Your task to perform on an android device: Search for the best selling phone on AliExpress Image 0: 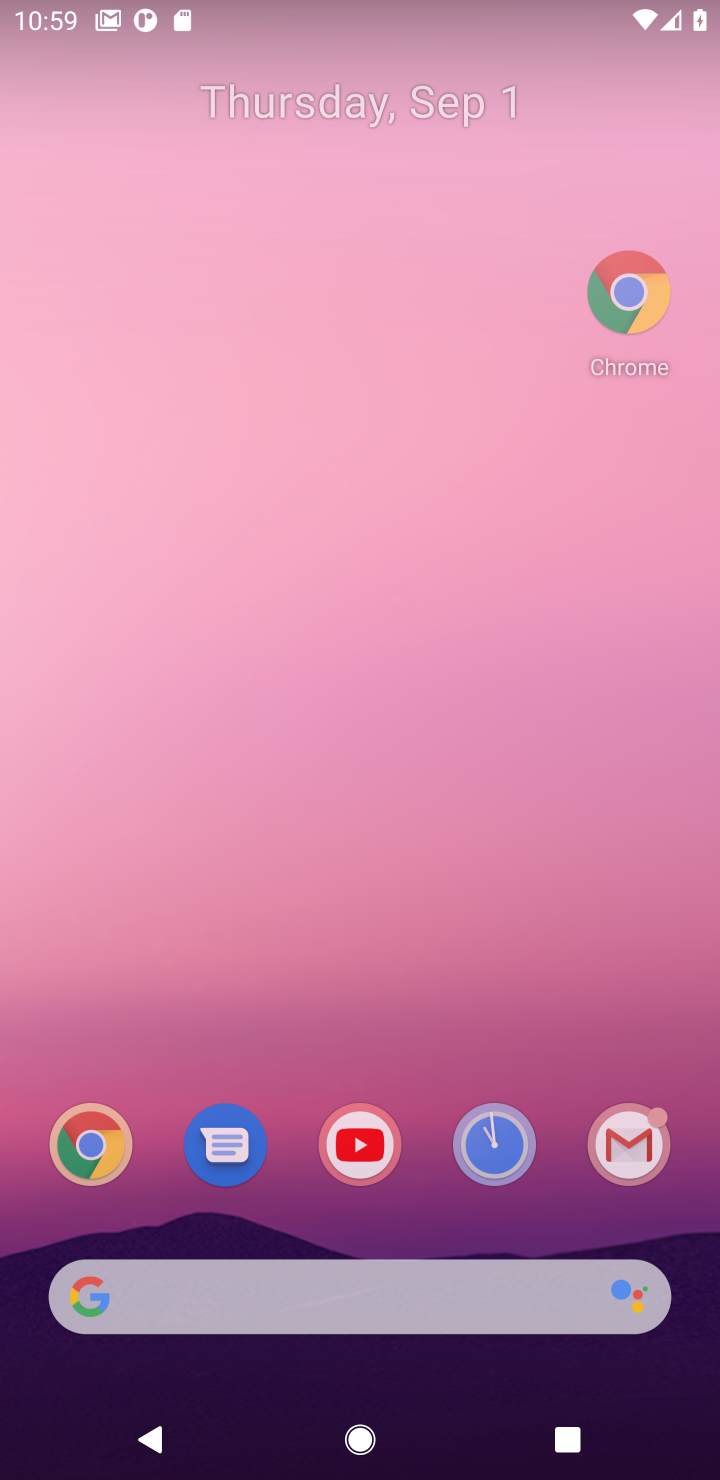
Step 0: press home button
Your task to perform on an android device: Search for the best selling phone on AliExpress Image 1: 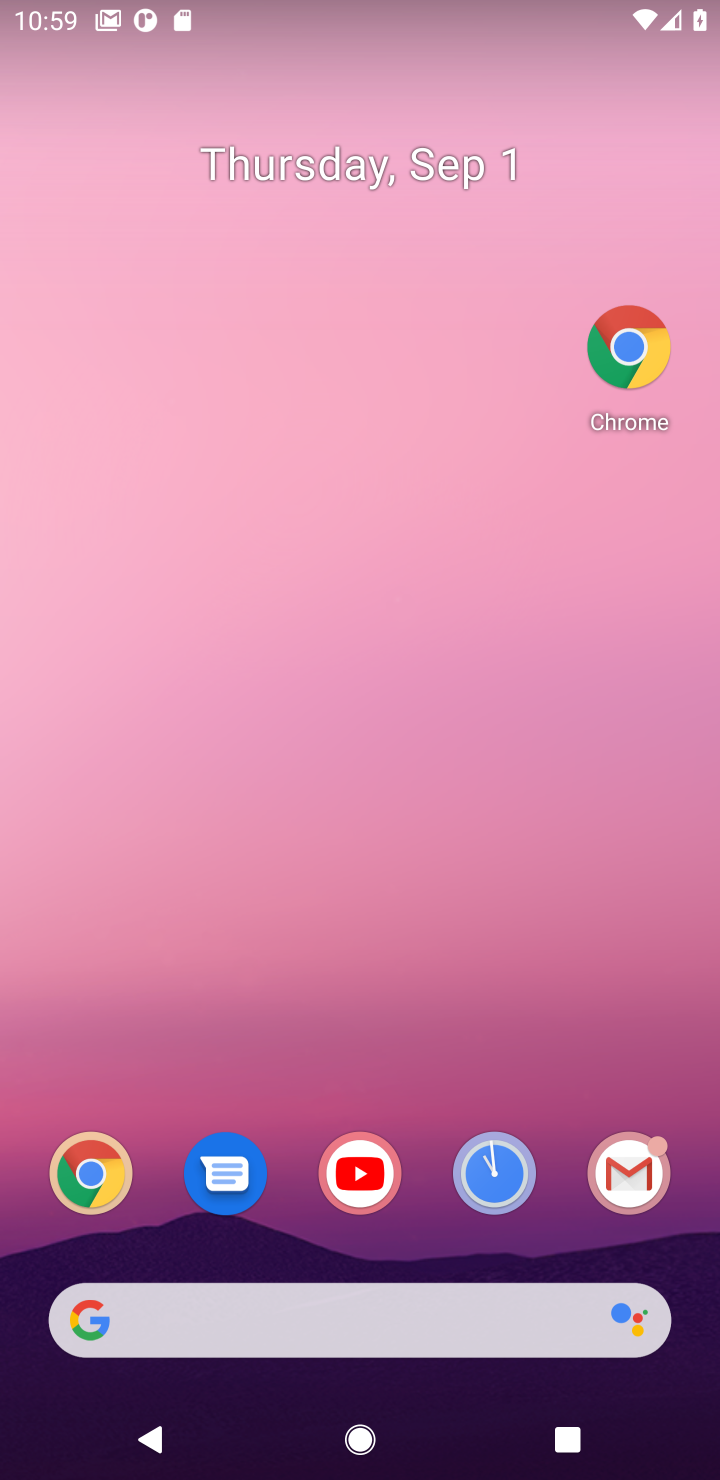
Step 1: drag from (474, 464) to (481, 4)
Your task to perform on an android device: Search for the best selling phone on AliExpress Image 2: 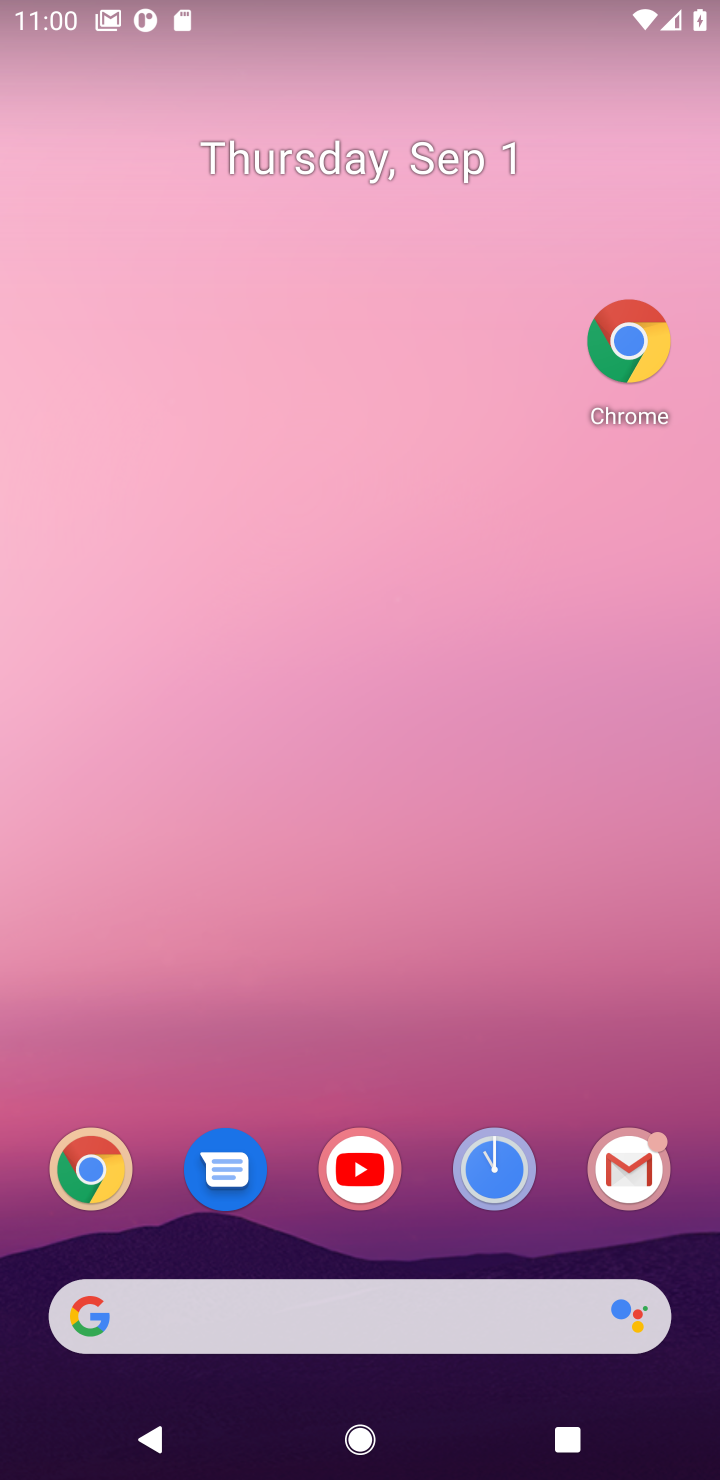
Step 2: drag from (428, 1057) to (48, 624)
Your task to perform on an android device: Search for the best selling phone on AliExpress Image 3: 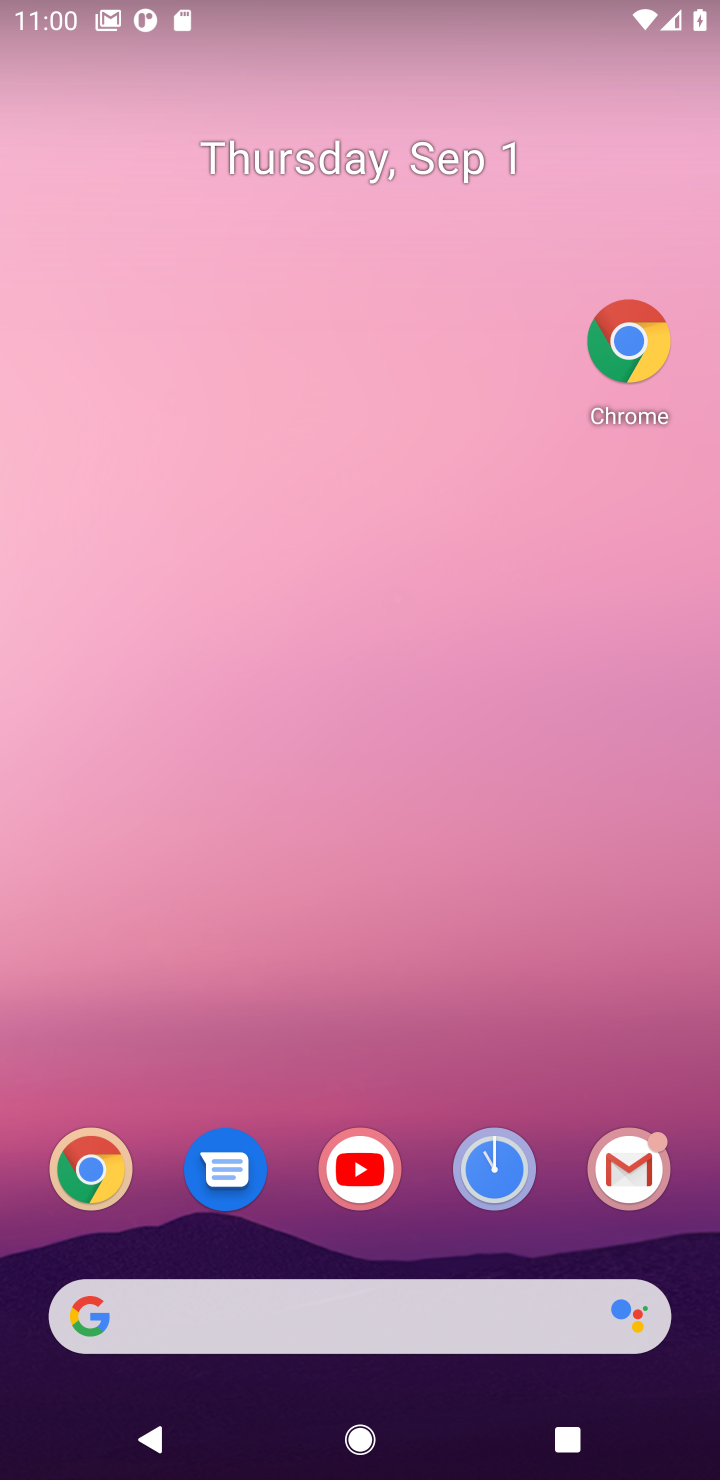
Step 3: drag from (428, 405) to (376, 48)
Your task to perform on an android device: Search for the best selling phone on AliExpress Image 4: 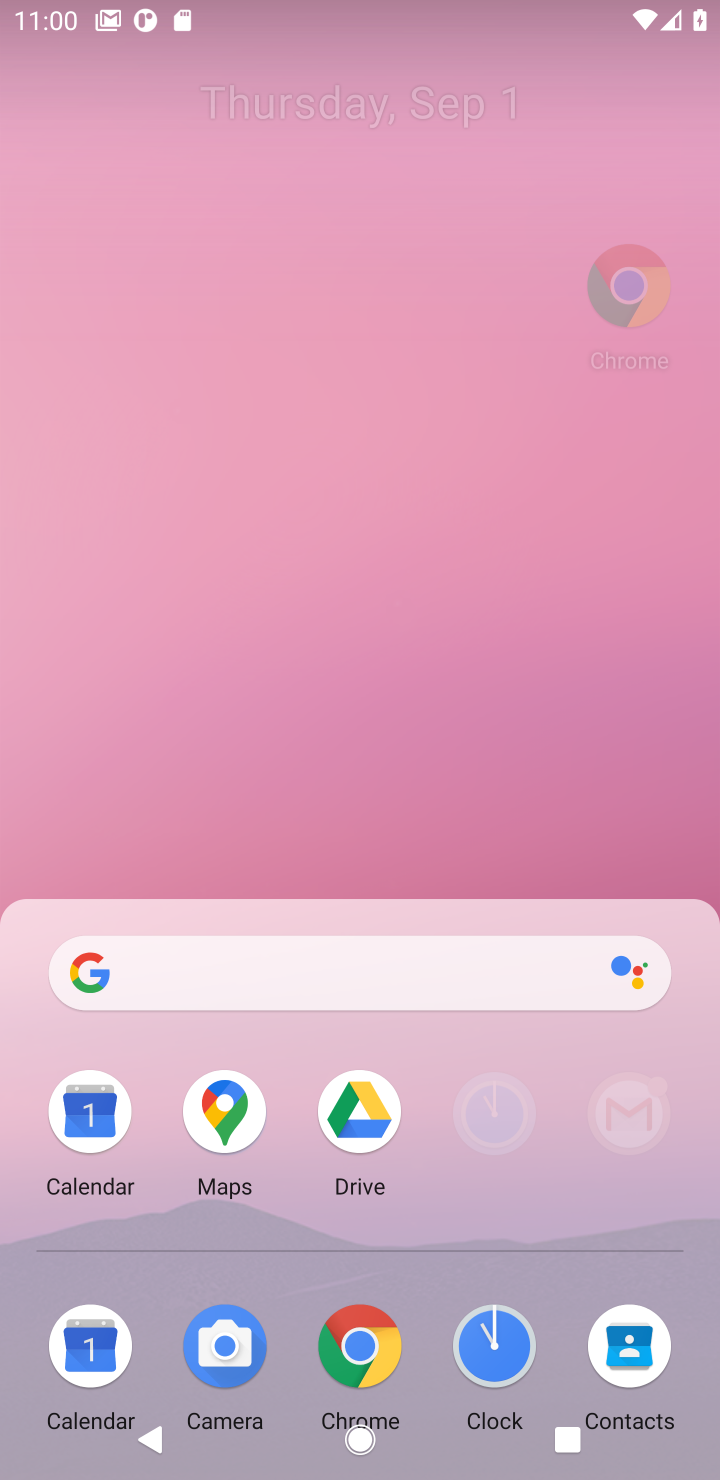
Step 4: click (467, 13)
Your task to perform on an android device: Search for the best selling phone on AliExpress Image 5: 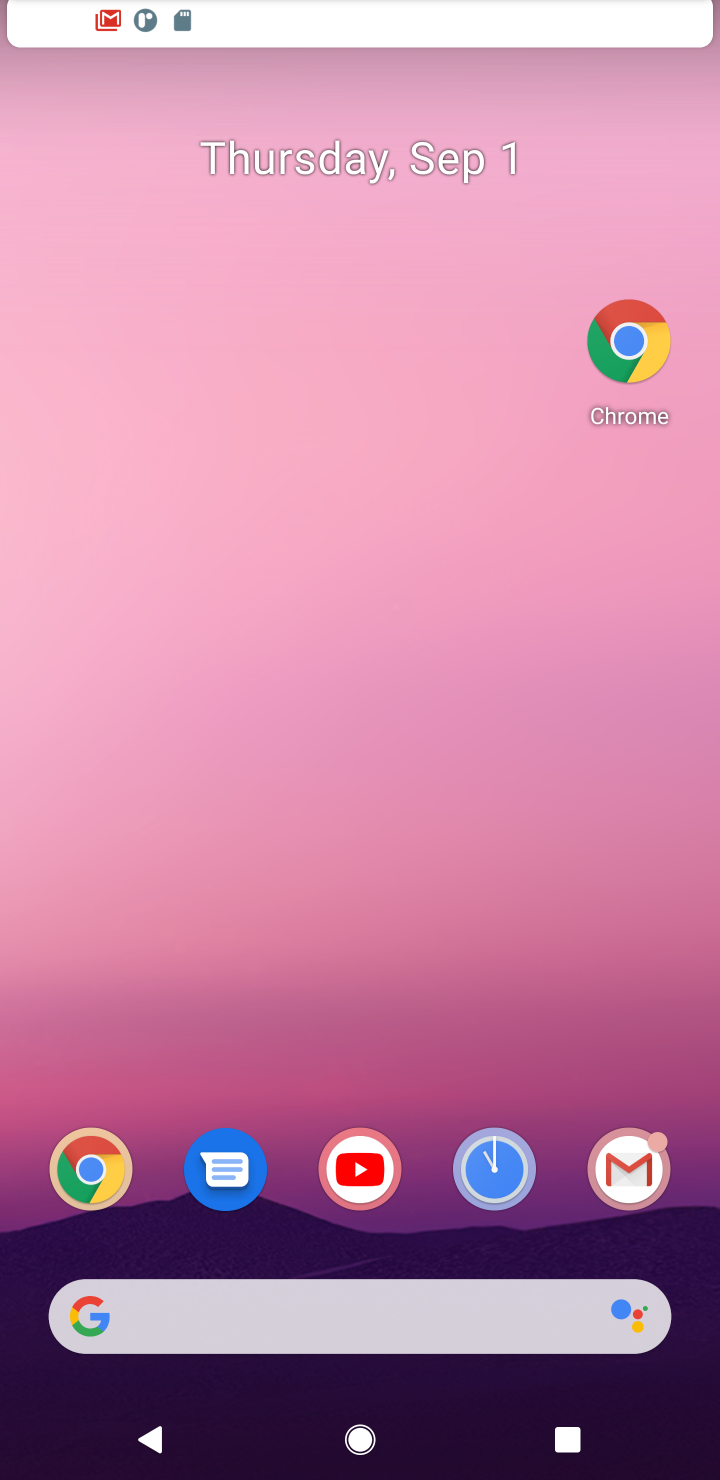
Step 5: drag from (416, 1214) to (446, 8)
Your task to perform on an android device: Search for the best selling phone on AliExpress Image 6: 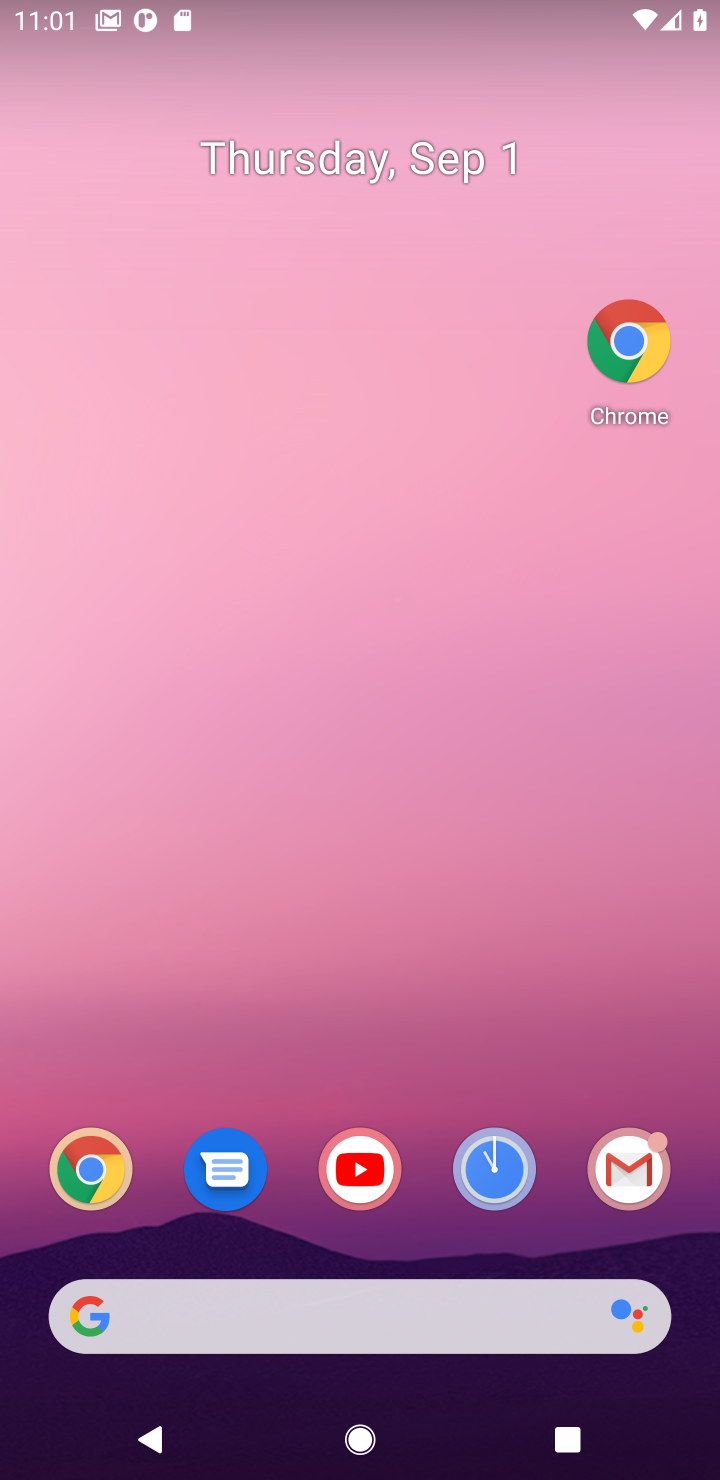
Step 6: drag from (430, 1026) to (394, 5)
Your task to perform on an android device: Search for the best selling phone on AliExpress Image 7: 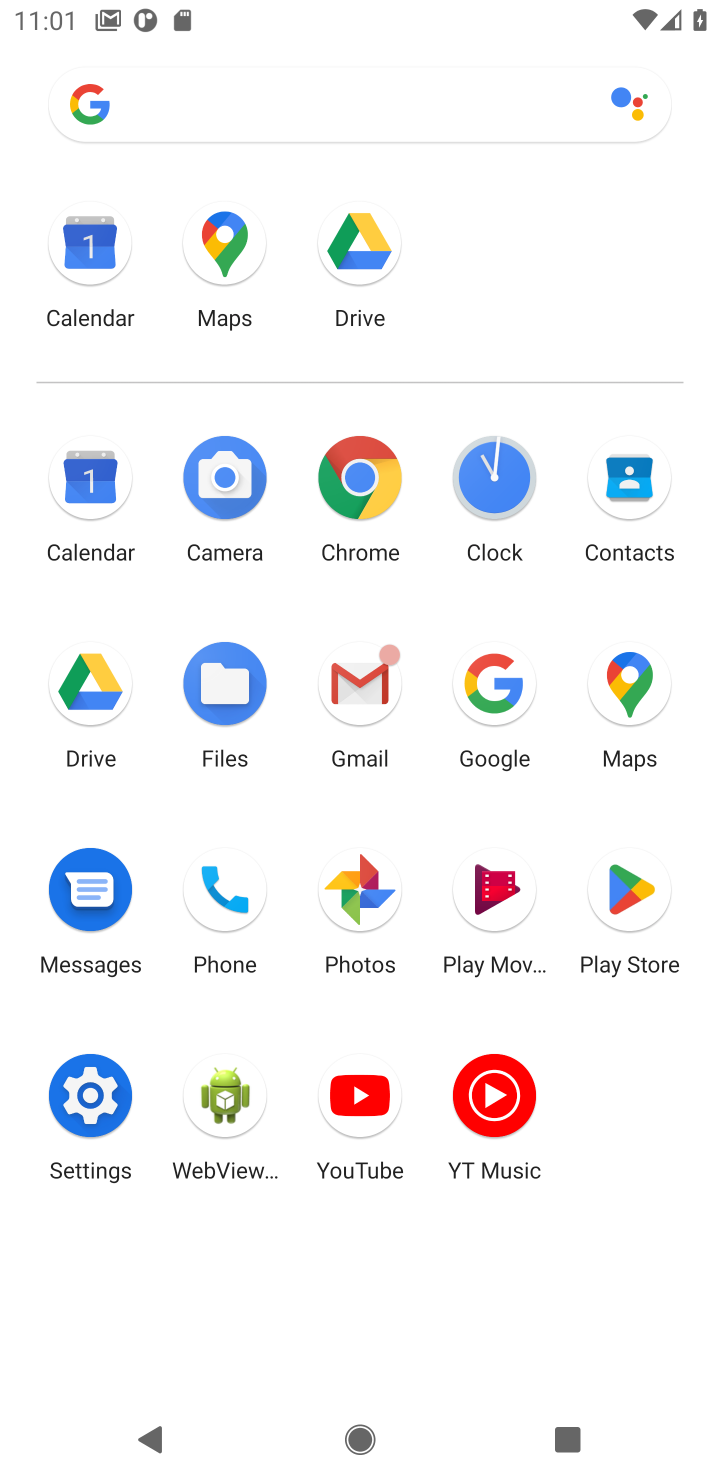
Step 7: click (341, 486)
Your task to perform on an android device: Search for the best selling phone on AliExpress Image 8: 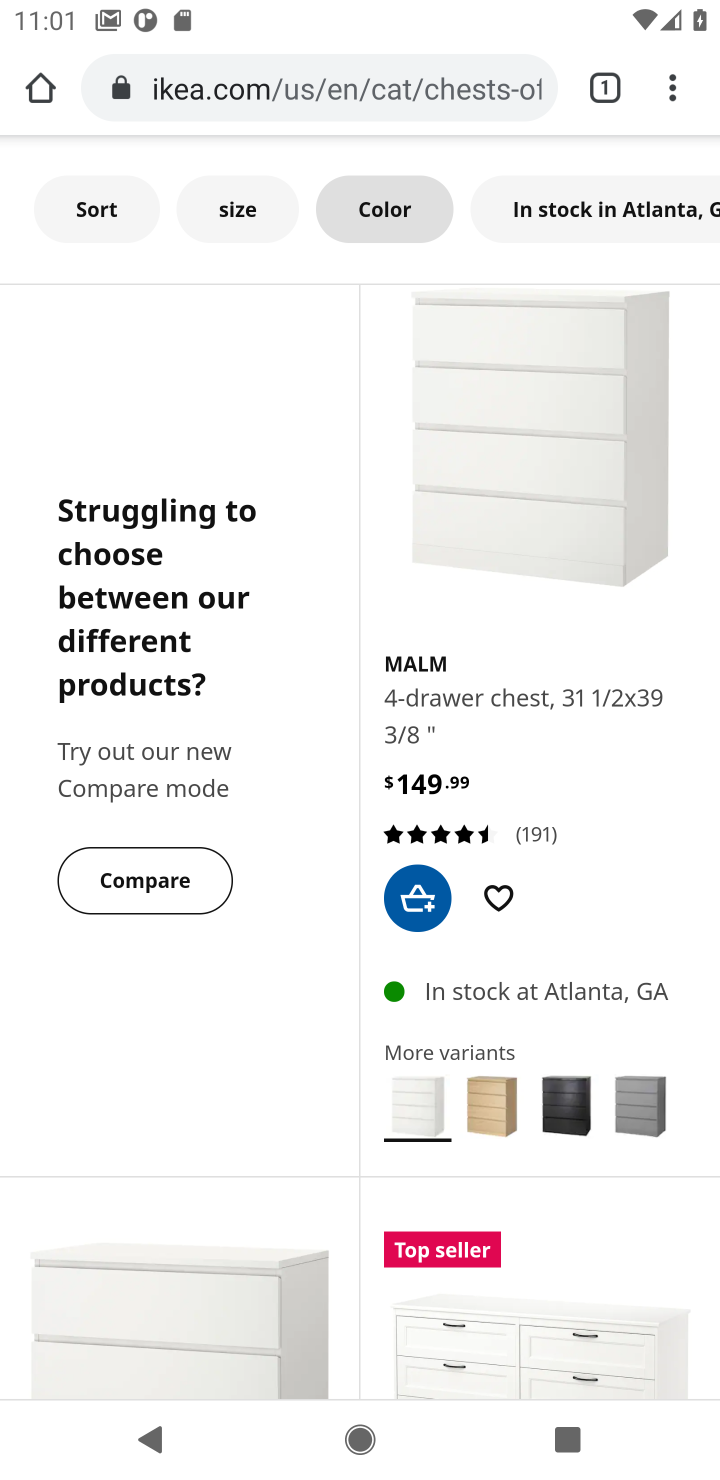
Step 8: click (412, 81)
Your task to perform on an android device: Search for the best selling phone on AliExpress Image 9: 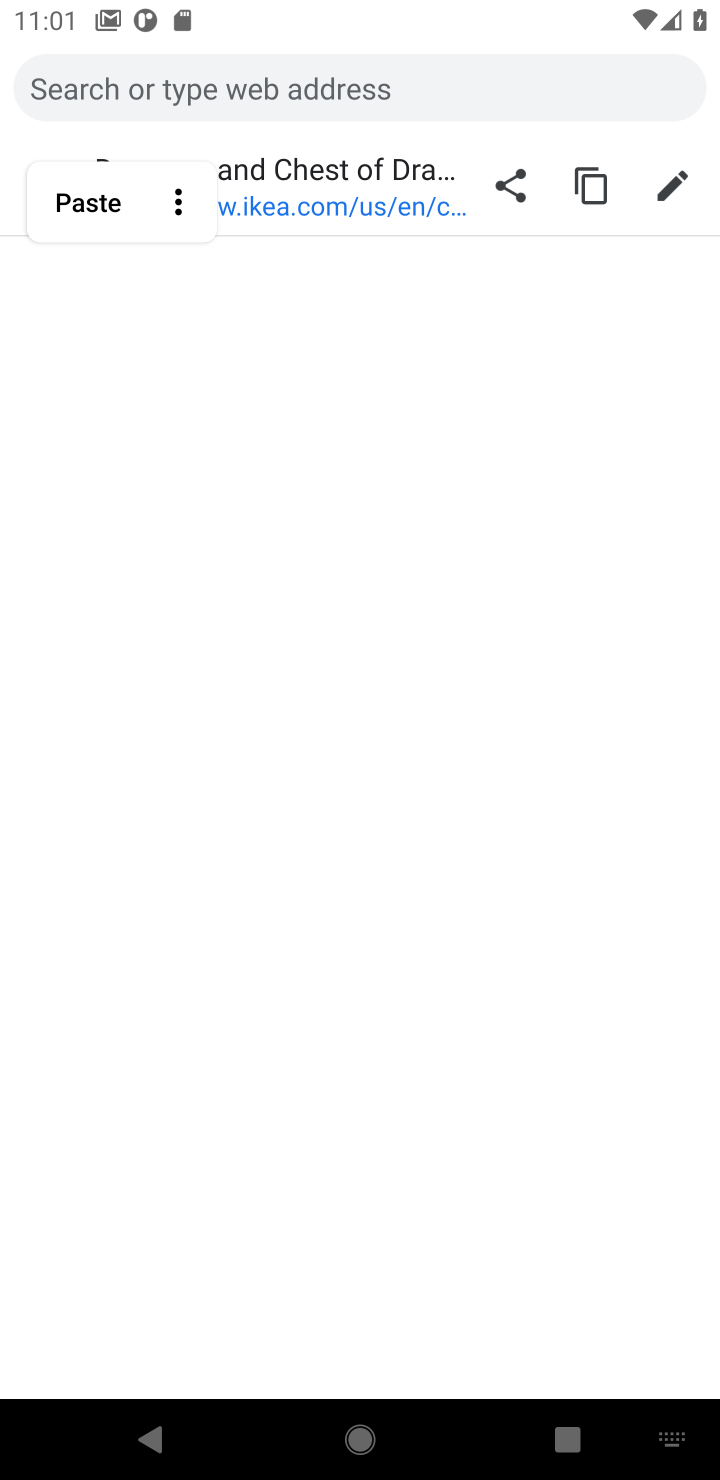
Step 9: type "best selling phone on AliExpress"
Your task to perform on an android device: Search for the best selling phone on AliExpress Image 10: 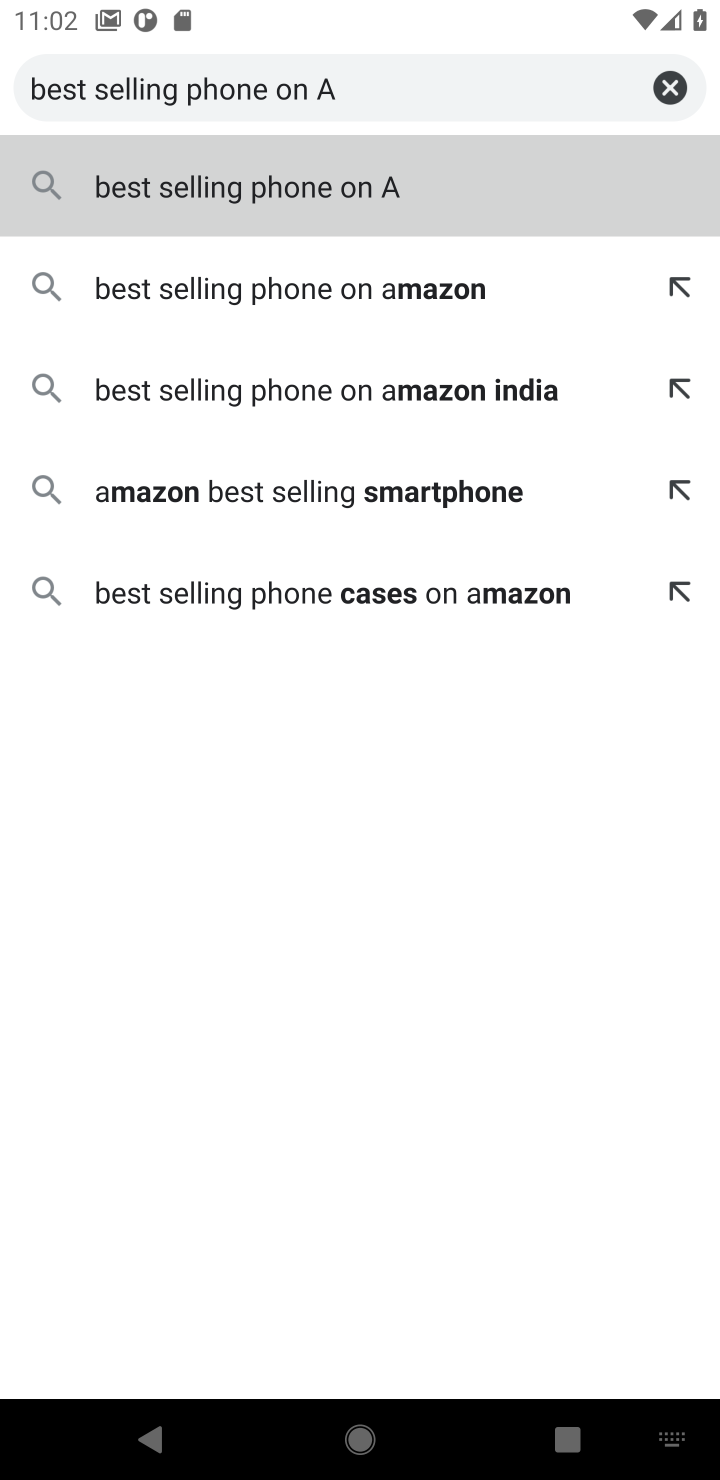
Step 10: type "liExpress"
Your task to perform on an android device: Search for the best selling phone on AliExpress Image 11: 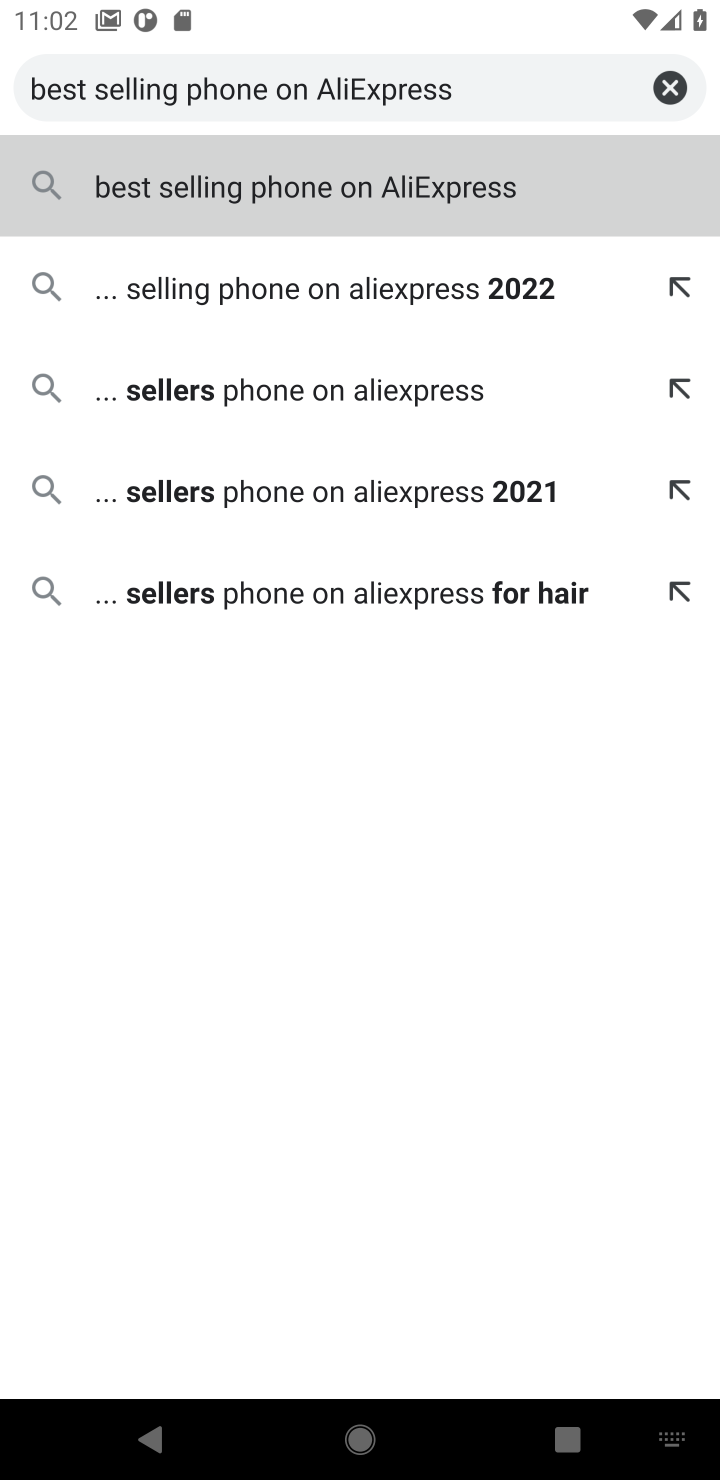
Step 11: click (418, 196)
Your task to perform on an android device: Search for the best selling phone on AliExpress Image 12: 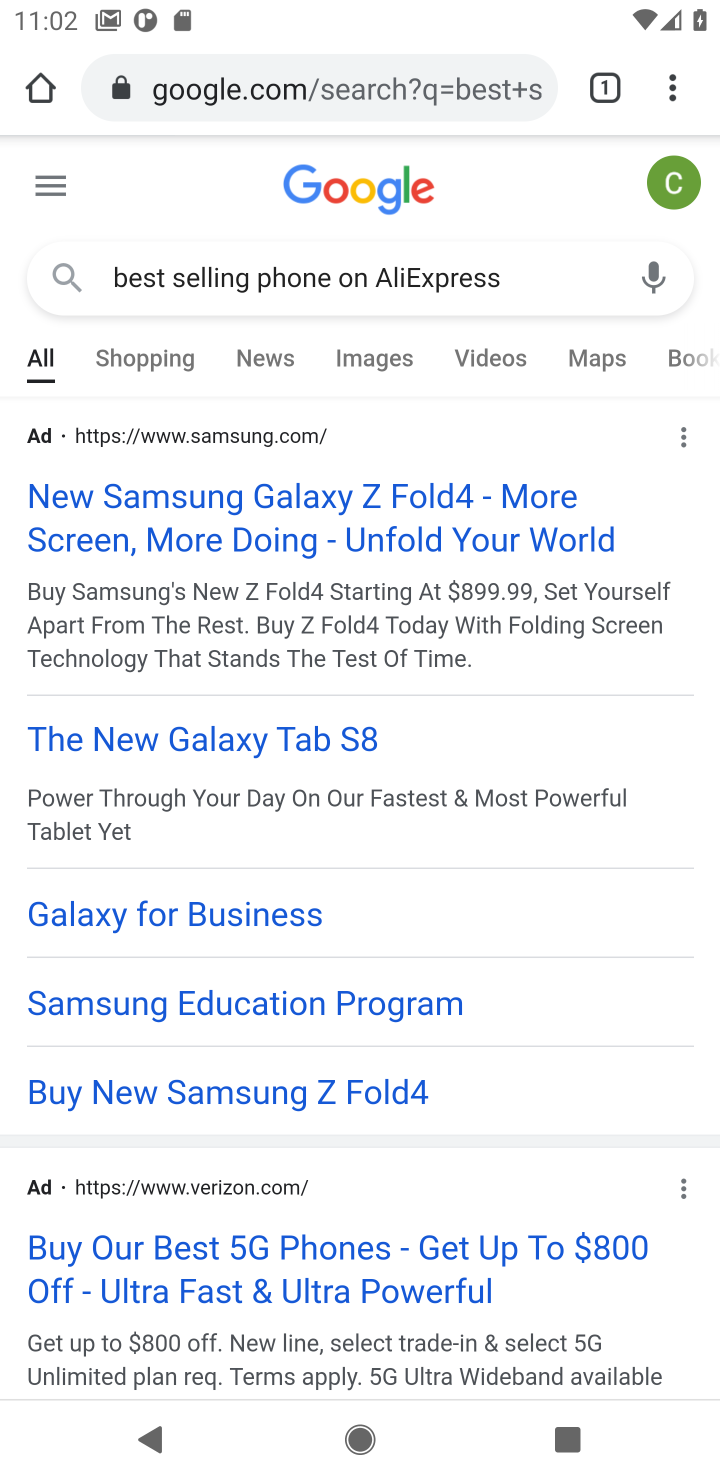
Step 12: drag from (361, 1195) to (355, 165)
Your task to perform on an android device: Search for the best selling phone on AliExpress Image 13: 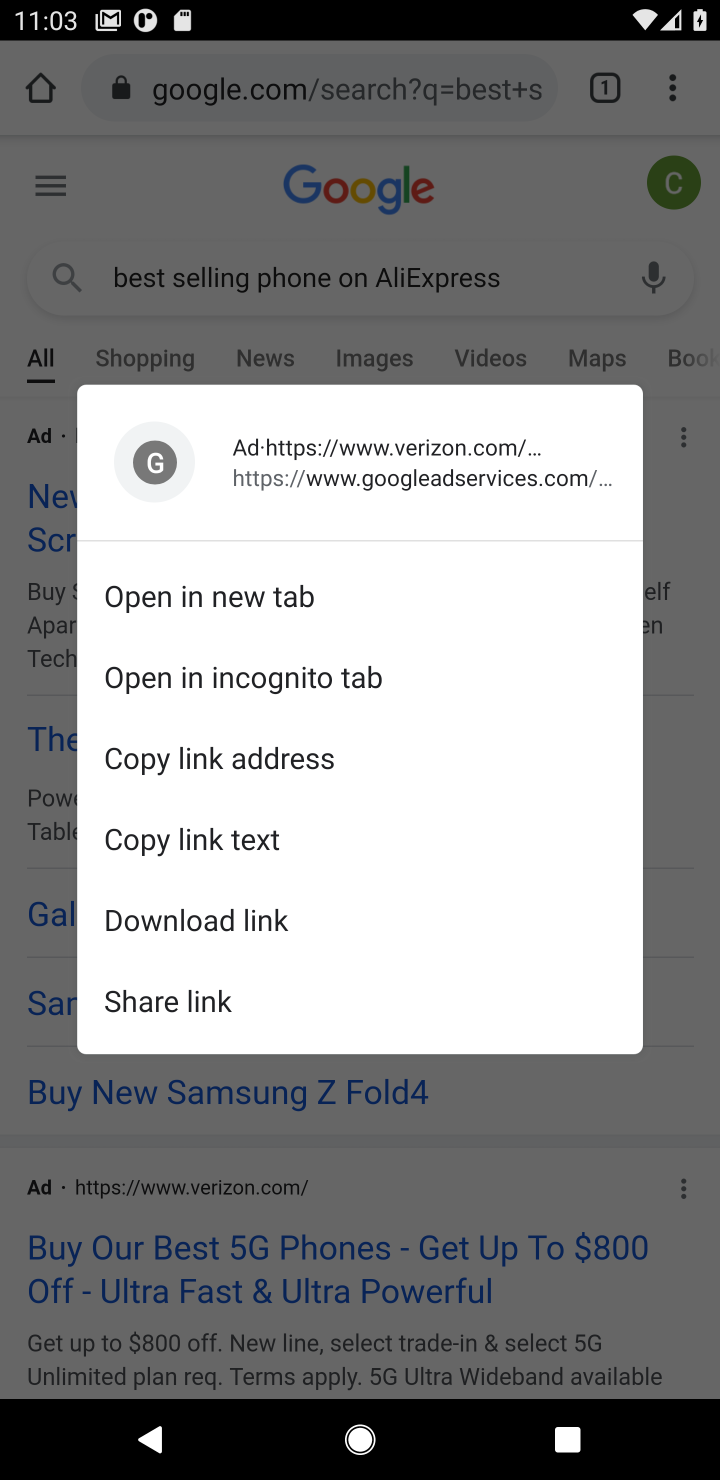
Step 13: click (218, 1166)
Your task to perform on an android device: Search for the best selling phone on AliExpress Image 14: 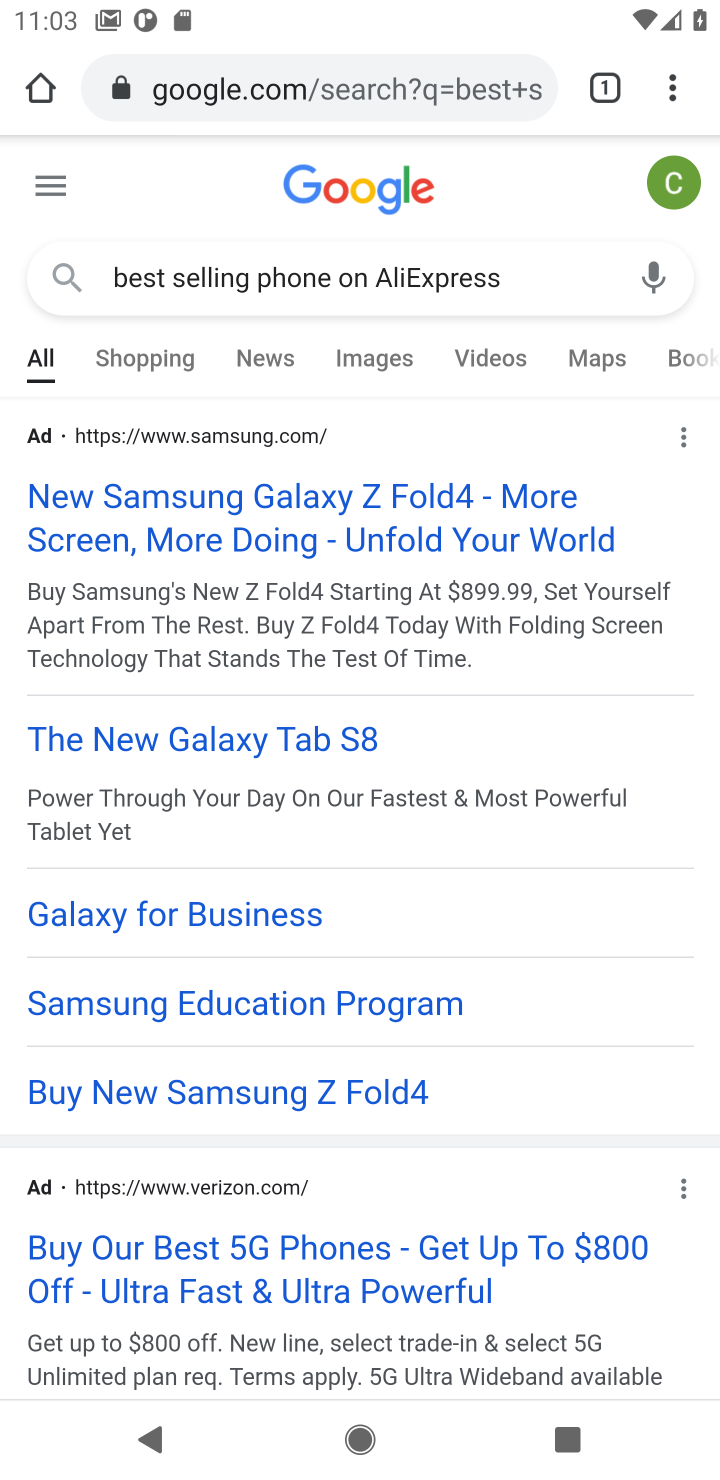
Step 14: drag from (583, 1183) to (647, 233)
Your task to perform on an android device: Search for the best selling phone on AliExpress Image 15: 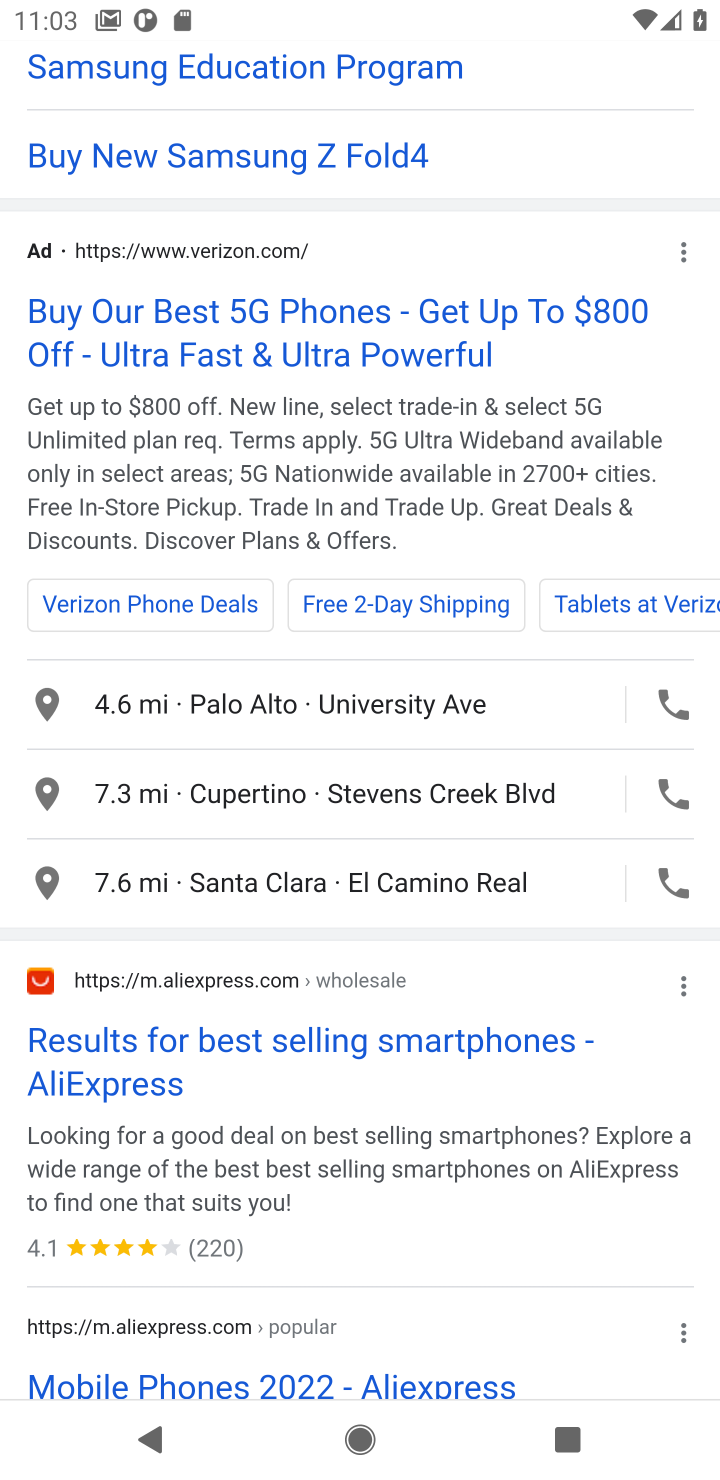
Step 15: click (454, 1038)
Your task to perform on an android device: Search for the best selling phone on AliExpress Image 16: 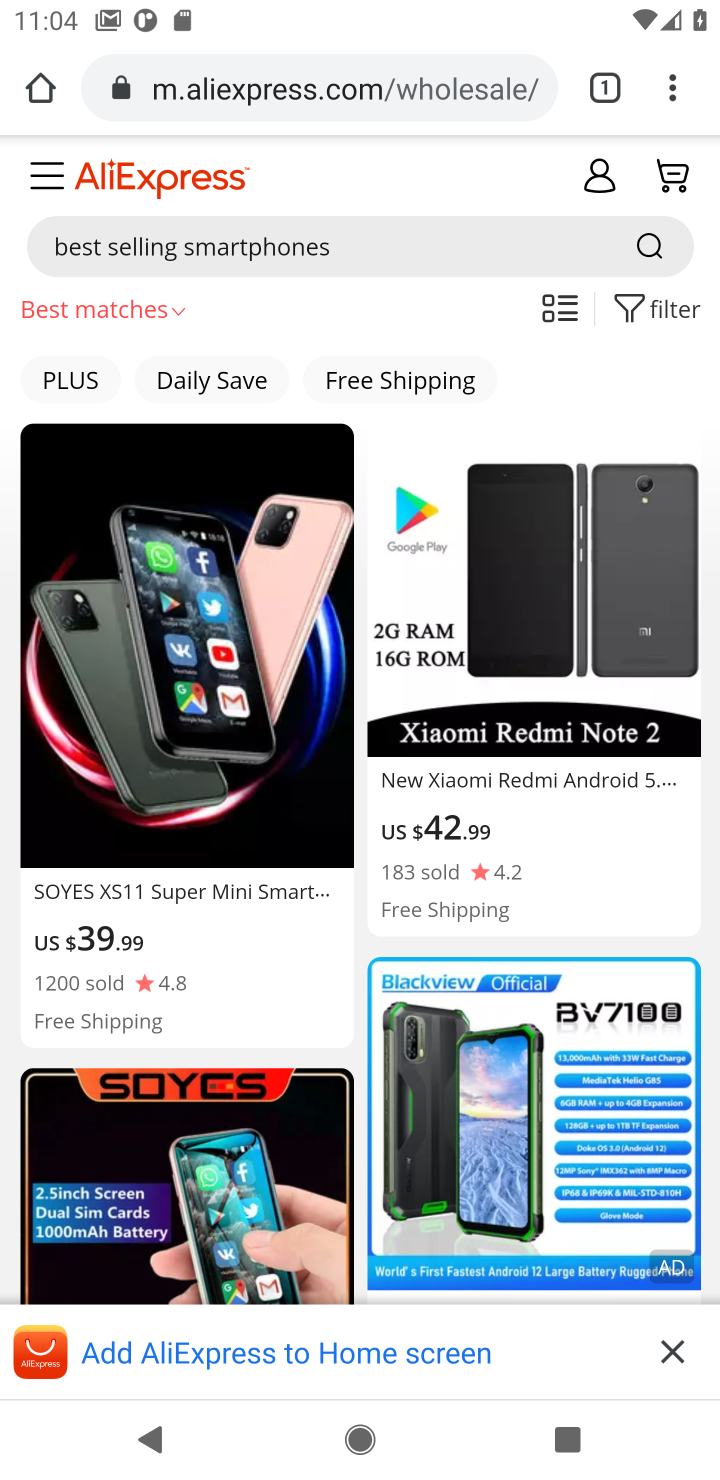
Step 16: drag from (336, 1160) to (505, 14)
Your task to perform on an android device: Search for the best selling phone on AliExpress Image 17: 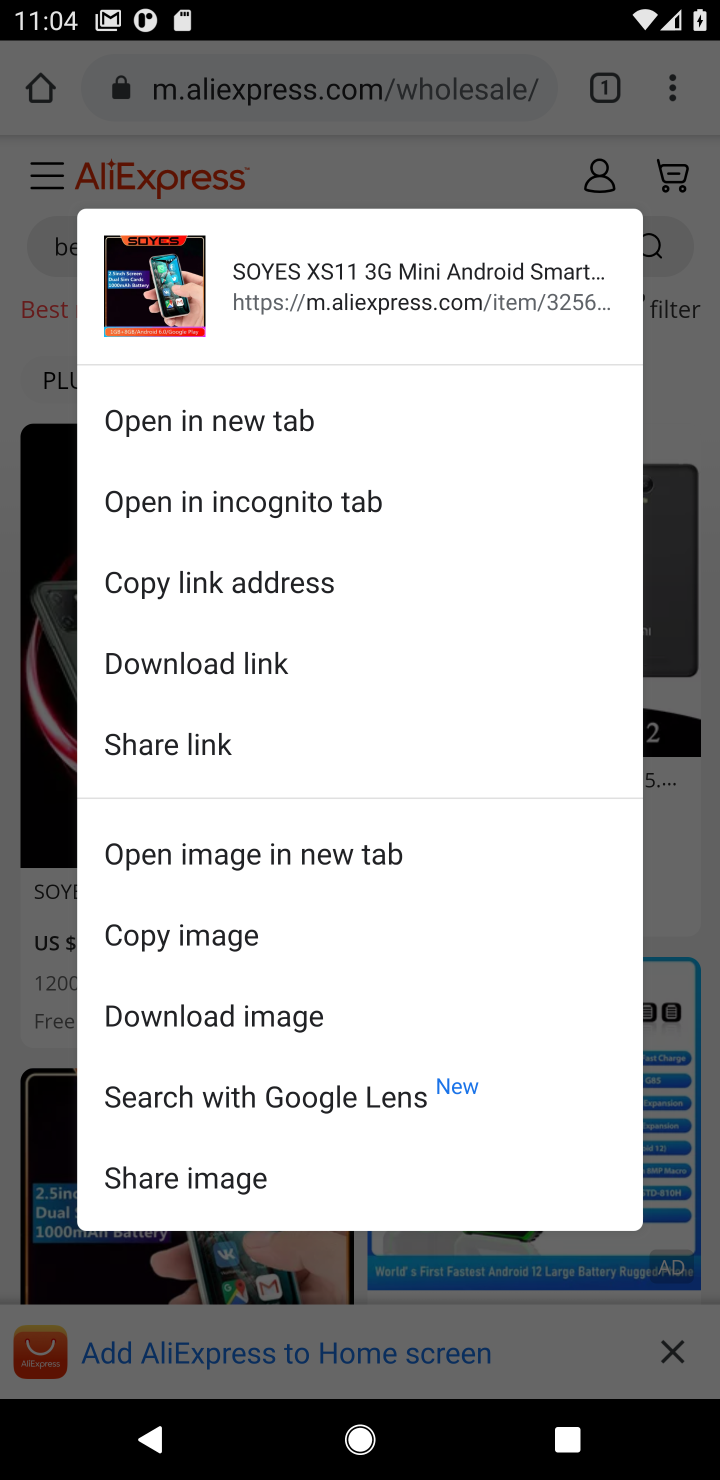
Step 17: click (73, 1243)
Your task to perform on an android device: Search for the best selling phone on AliExpress Image 18: 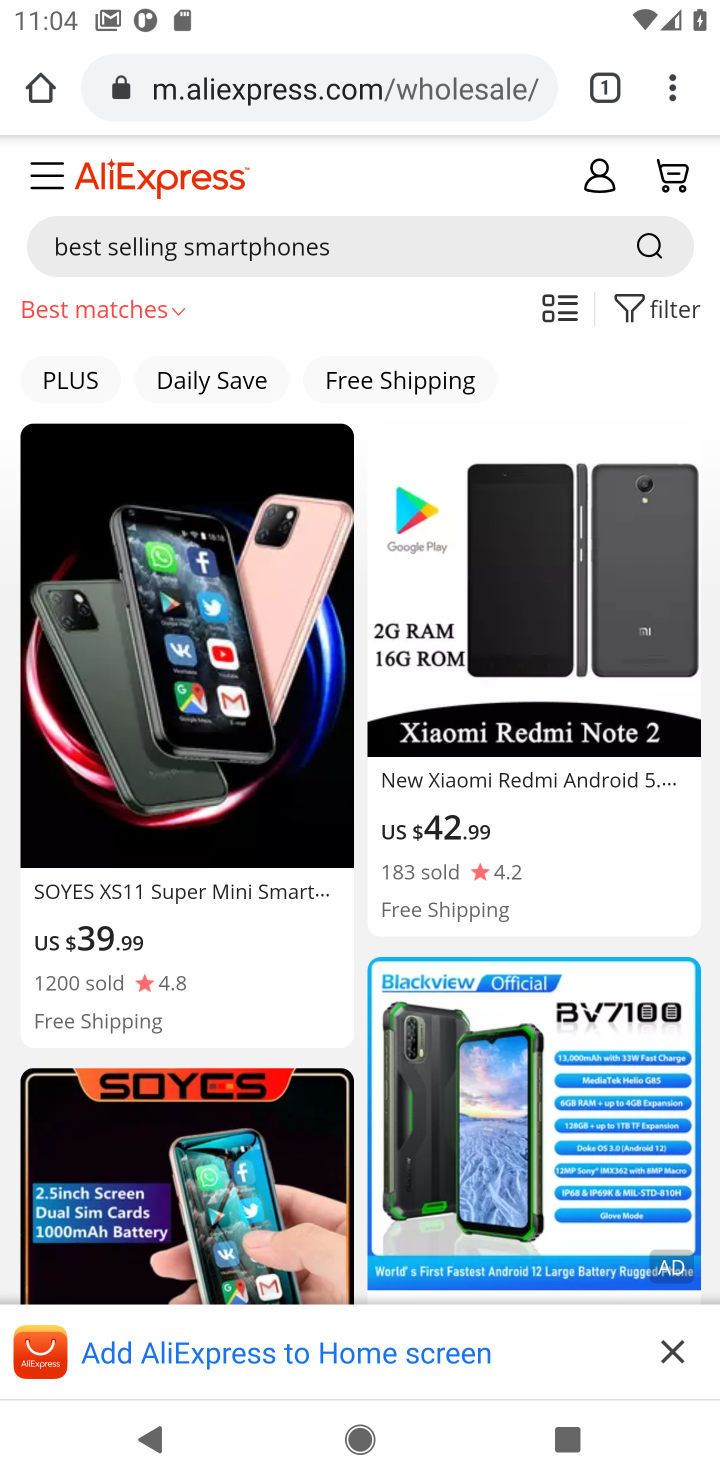
Step 18: drag from (360, 810) to (461, 10)
Your task to perform on an android device: Search for the best selling phone on AliExpress Image 19: 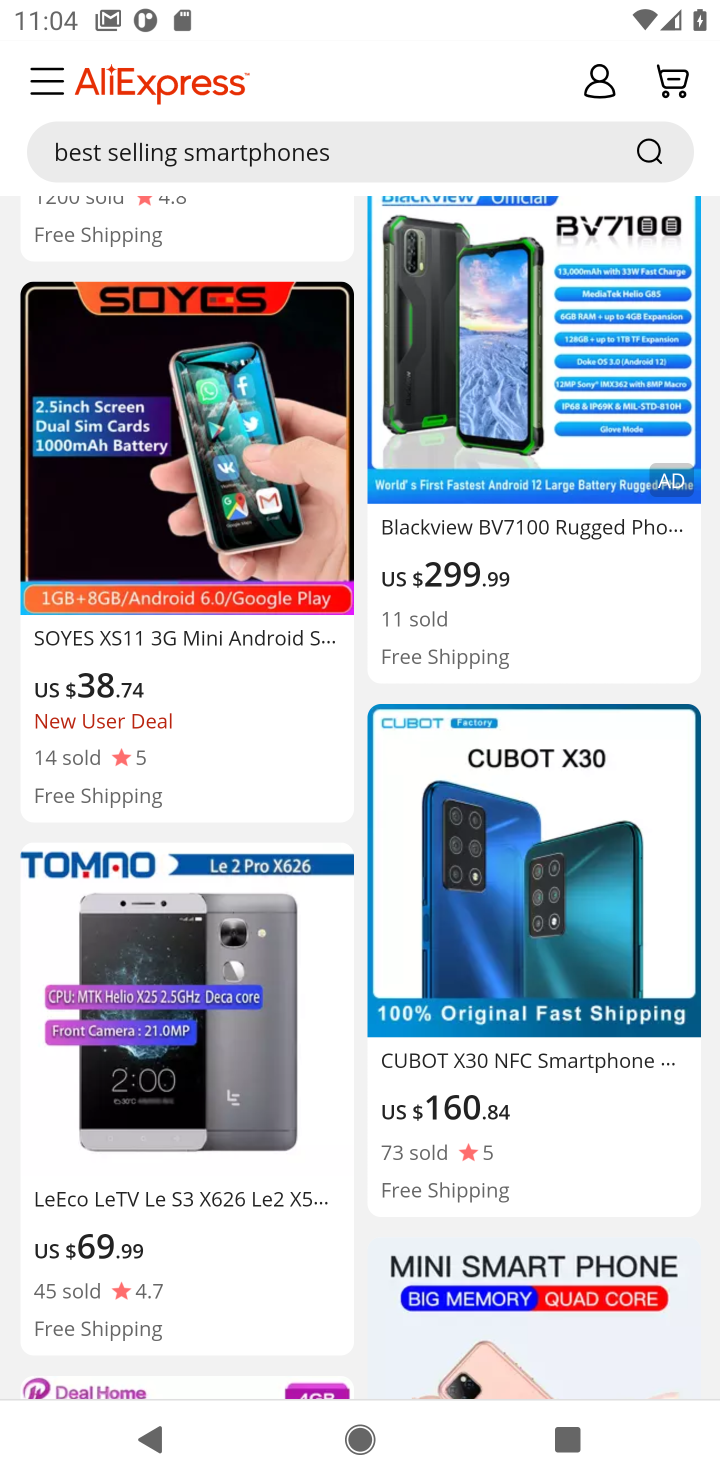
Step 19: drag from (355, 1085) to (385, 0)
Your task to perform on an android device: Search for the best selling phone on AliExpress Image 20: 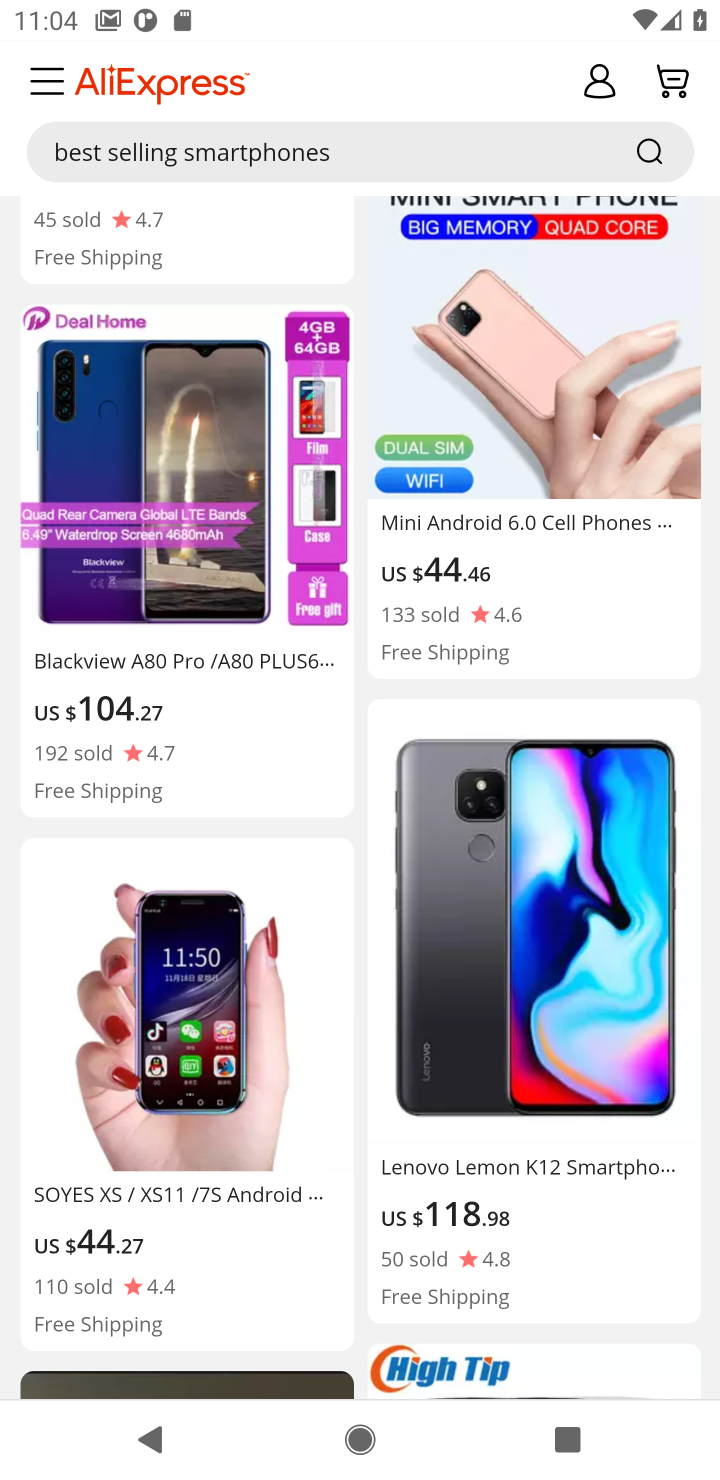
Step 20: click (424, 205)
Your task to perform on an android device: Search for the best selling phone on AliExpress Image 21: 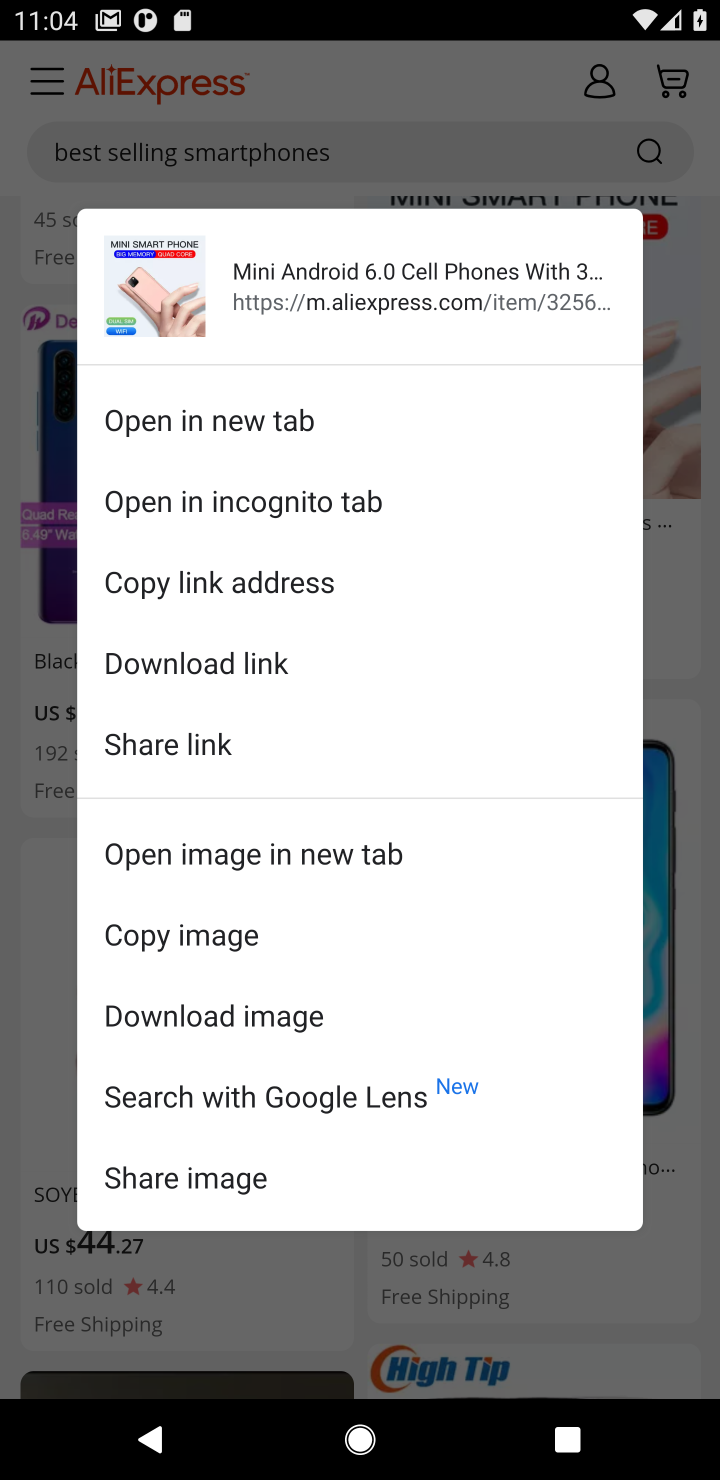
Step 21: task complete